Your task to perform on an android device: all mails in gmail Image 0: 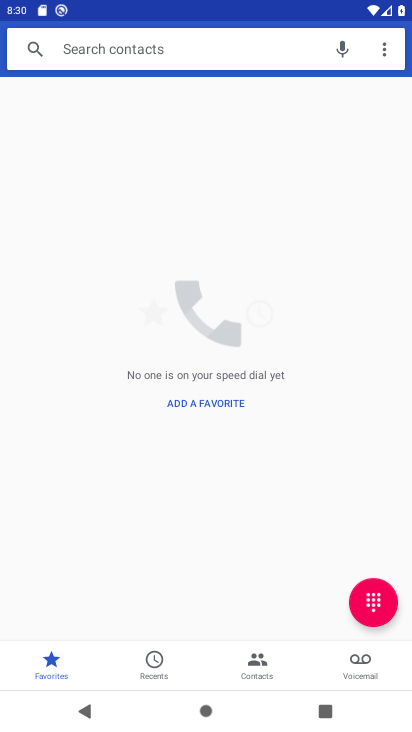
Step 0: press home button
Your task to perform on an android device: all mails in gmail Image 1: 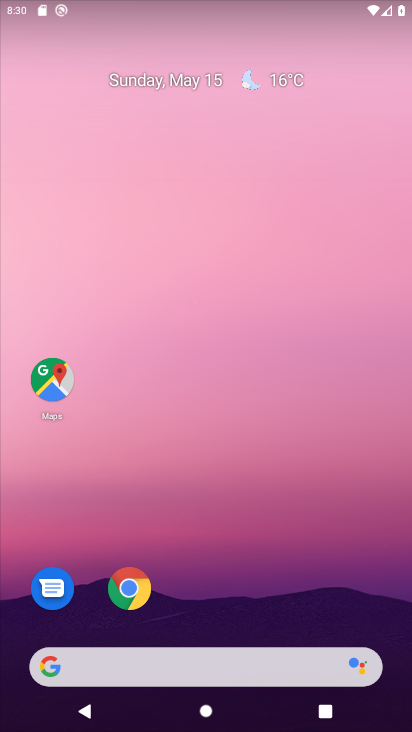
Step 1: drag from (288, 597) to (347, 84)
Your task to perform on an android device: all mails in gmail Image 2: 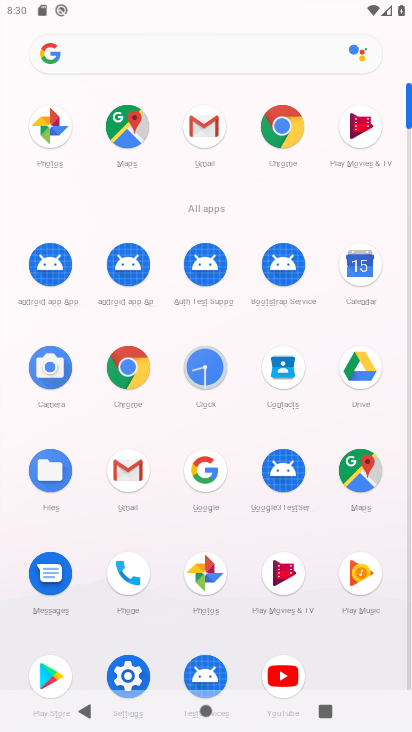
Step 2: click (133, 479)
Your task to perform on an android device: all mails in gmail Image 3: 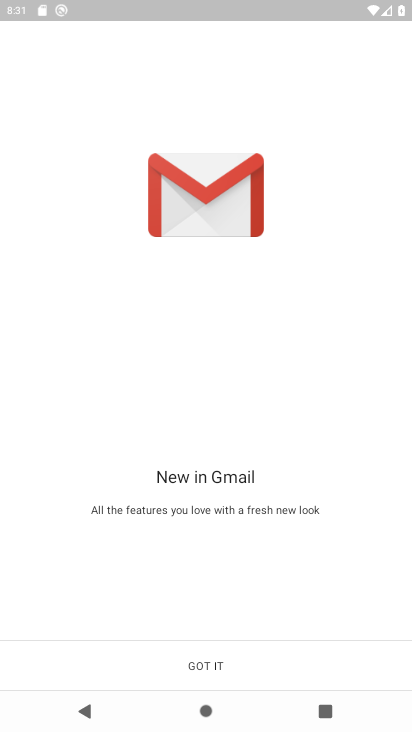
Step 3: click (211, 665)
Your task to perform on an android device: all mails in gmail Image 4: 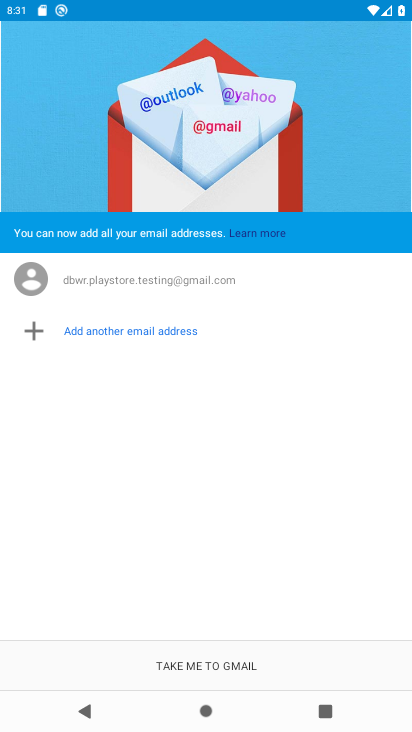
Step 4: click (211, 665)
Your task to perform on an android device: all mails in gmail Image 5: 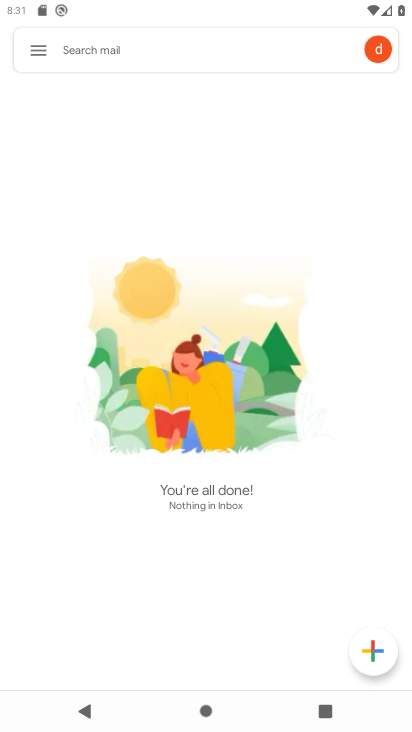
Step 5: click (36, 55)
Your task to perform on an android device: all mails in gmail Image 6: 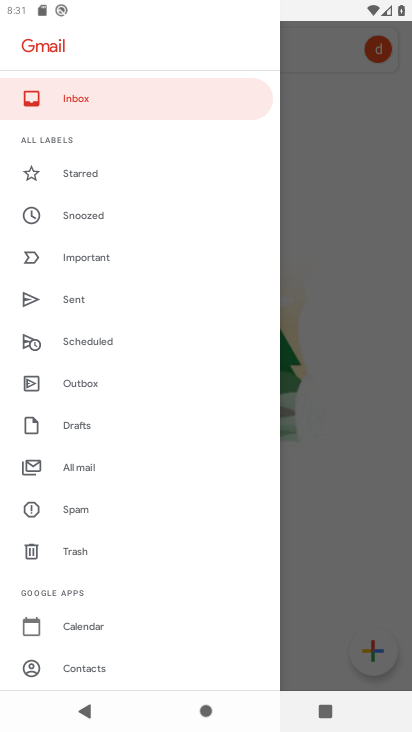
Step 6: click (83, 470)
Your task to perform on an android device: all mails in gmail Image 7: 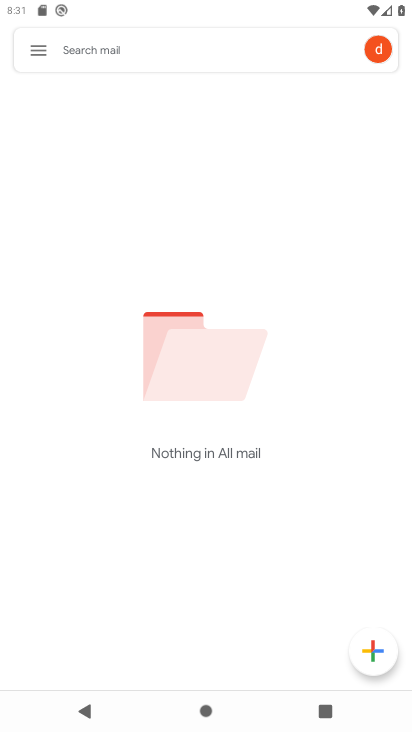
Step 7: task complete